Your task to perform on an android device: Open Chrome and go to settings Image 0: 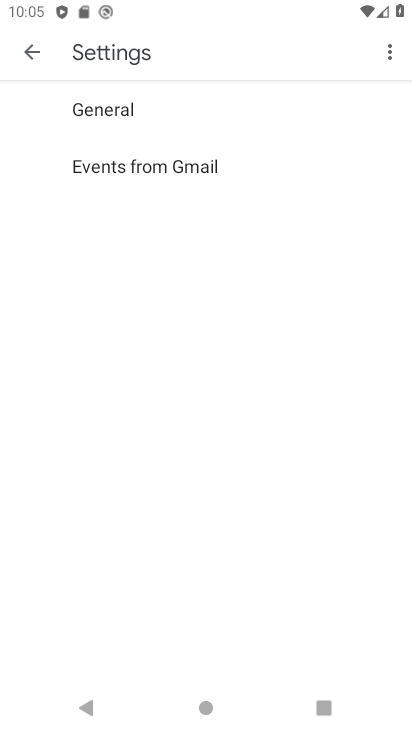
Step 0: press home button
Your task to perform on an android device: Open Chrome and go to settings Image 1: 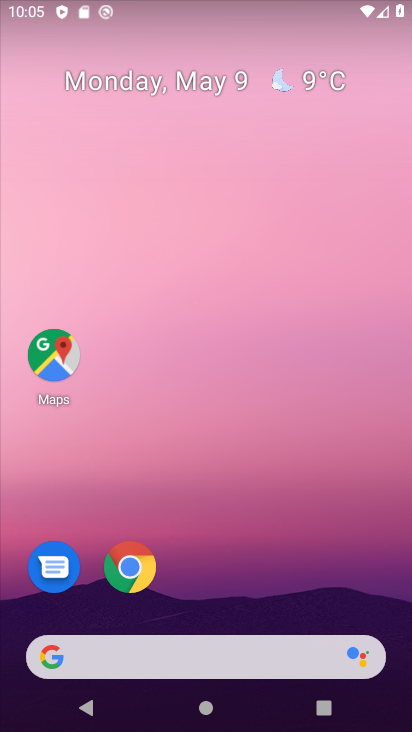
Step 1: click (126, 559)
Your task to perform on an android device: Open Chrome and go to settings Image 2: 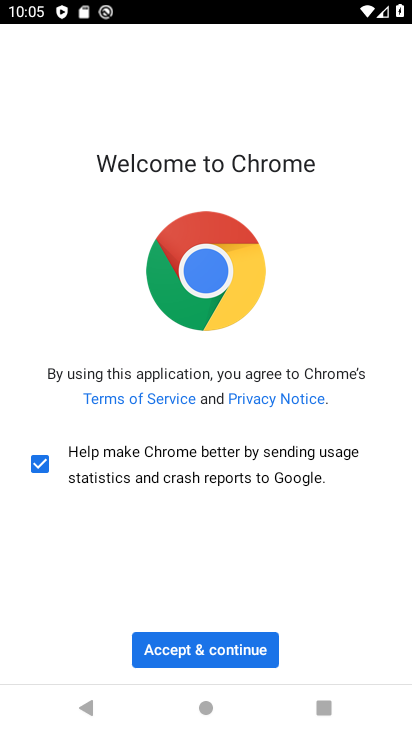
Step 2: click (199, 640)
Your task to perform on an android device: Open Chrome and go to settings Image 3: 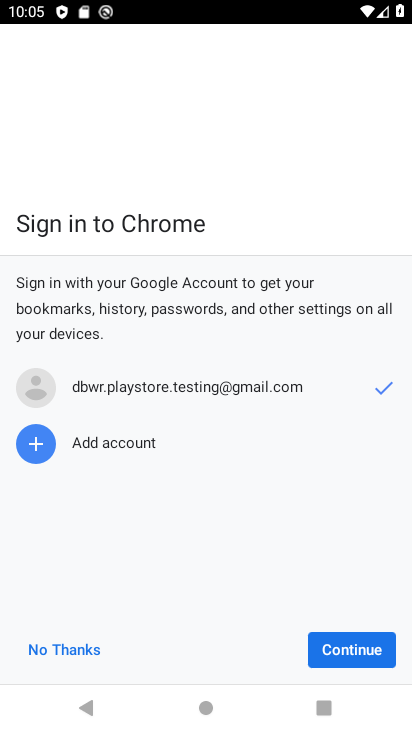
Step 3: click (358, 648)
Your task to perform on an android device: Open Chrome and go to settings Image 4: 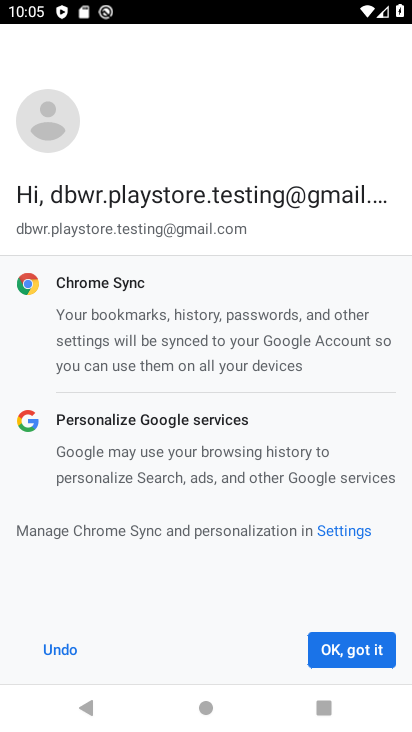
Step 4: click (347, 640)
Your task to perform on an android device: Open Chrome and go to settings Image 5: 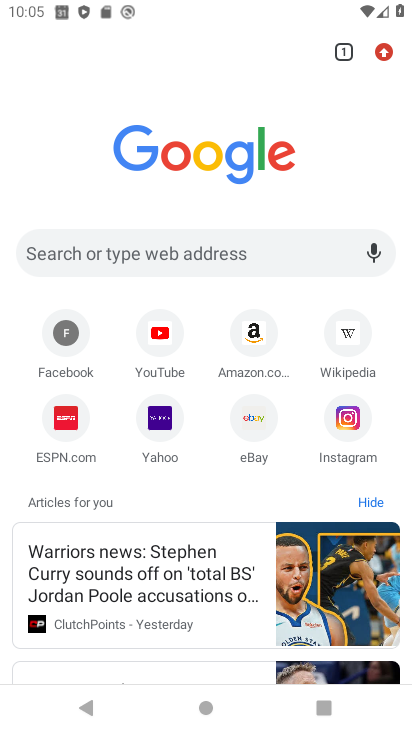
Step 5: click (380, 51)
Your task to perform on an android device: Open Chrome and go to settings Image 6: 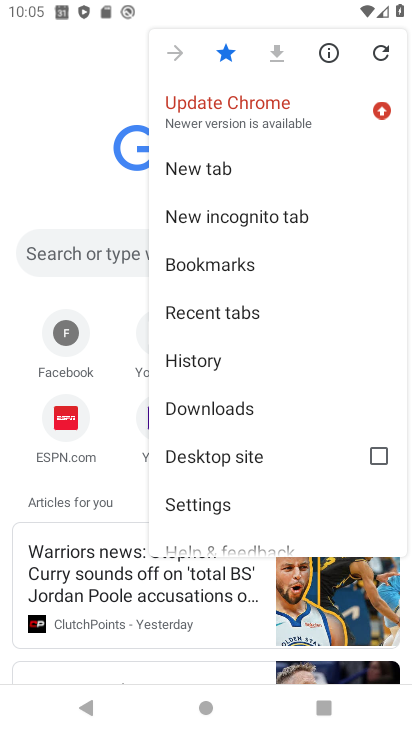
Step 6: click (239, 501)
Your task to perform on an android device: Open Chrome and go to settings Image 7: 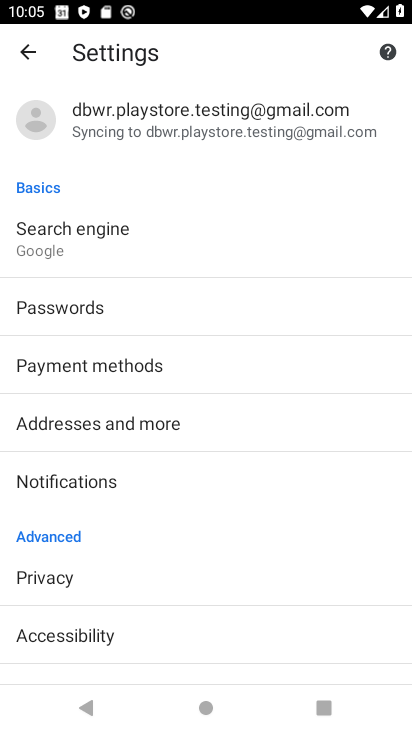
Step 7: task complete